Your task to perform on an android device: snooze an email in the gmail app Image 0: 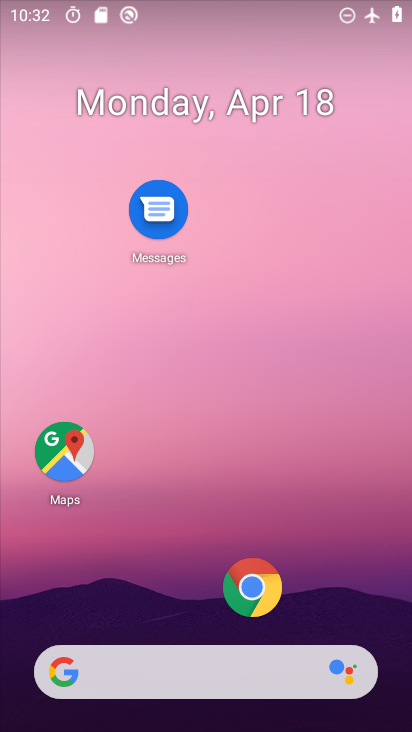
Step 0: drag from (158, 610) to (355, 13)
Your task to perform on an android device: snooze an email in the gmail app Image 1: 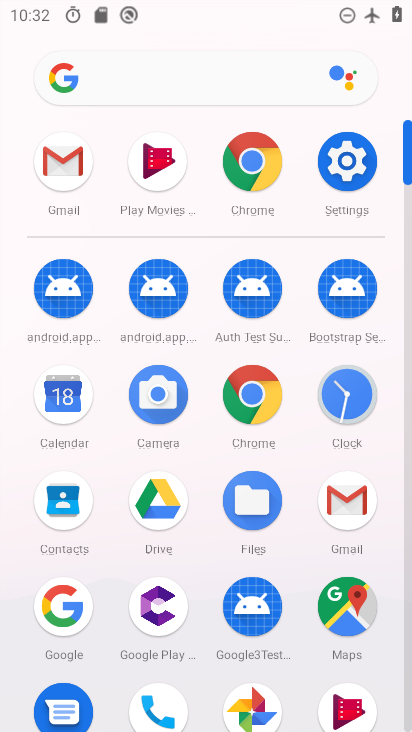
Step 1: click (354, 514)
Your task to perform on an android device: snooze an email in the gmail app Image 2: 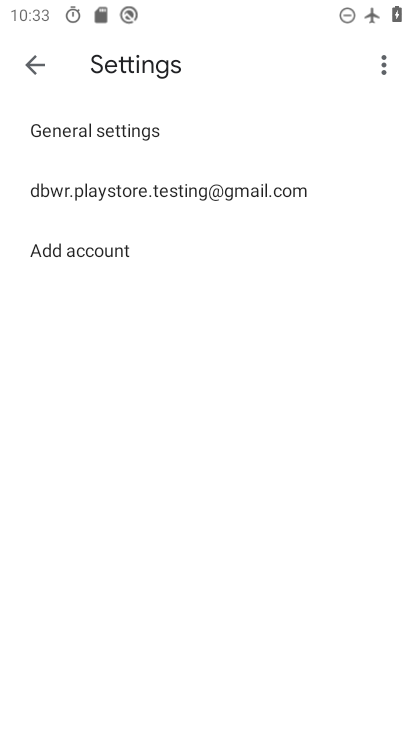
Step 2: click (26, 62)
Your task to perform on an android device: snooze an email in the gmail app Image 3: 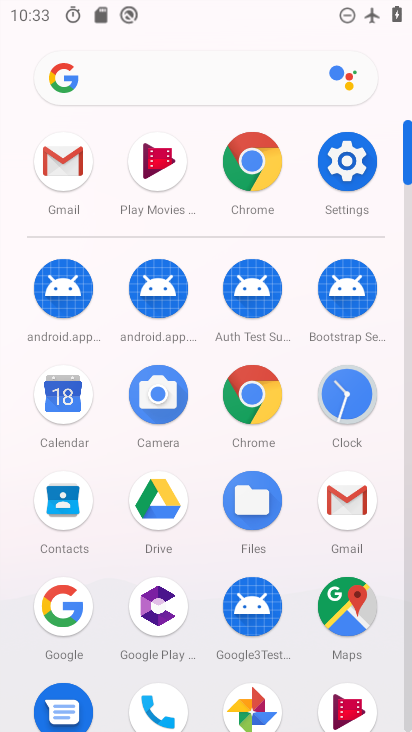
Step 3: click (346, 496)
Your task to perform on an android device: snooze an email in the gmail app Image 4: 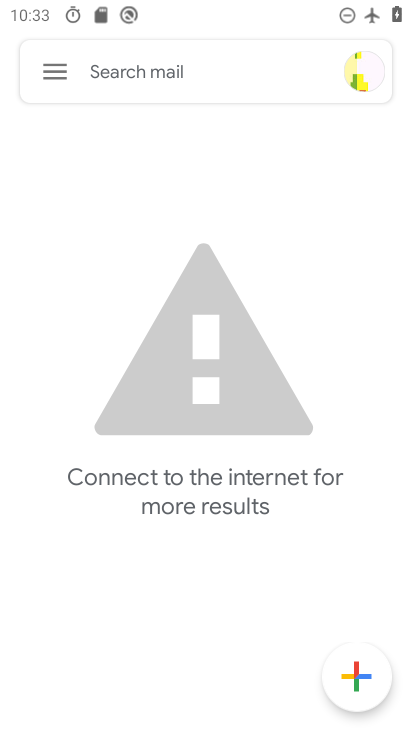
Step 4: task complete